Your task to perform on an android device: When is my next meeting? Image 0: 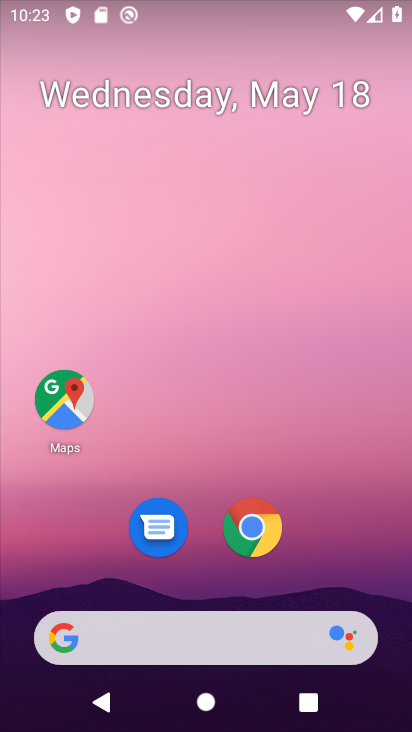
Step 0: drag from (346, 535) to (351, 184)
Your task to perform on an android device: When is my next meeting? Image 1: 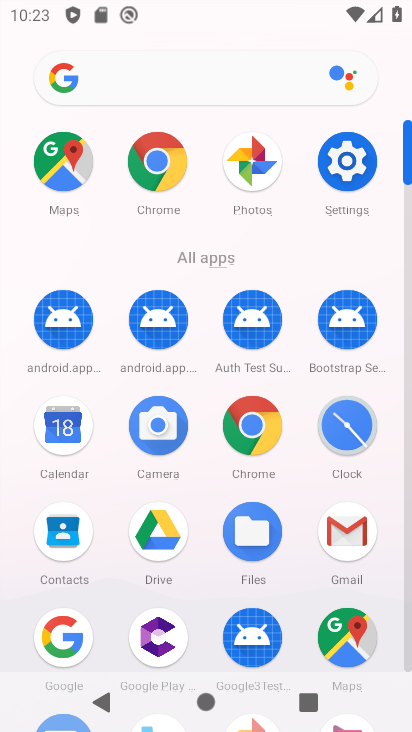
Step 1: click (57, 432)
Your task to perform on an android device: When is my next meeting? Image 2: 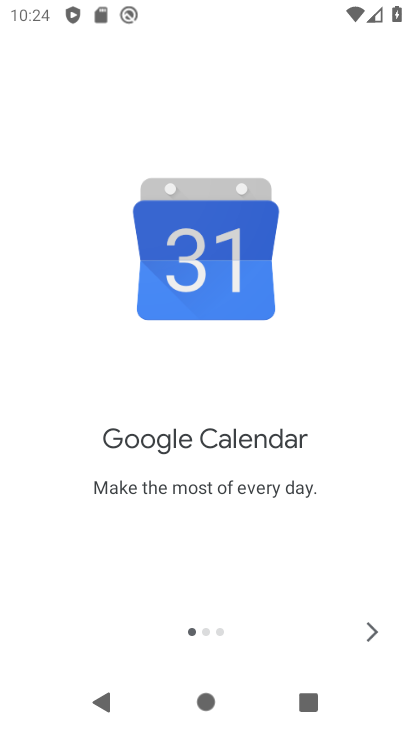
Step 2: click (373, 618)
Your task to perform on an android device: When is my next meeting? Image 3: 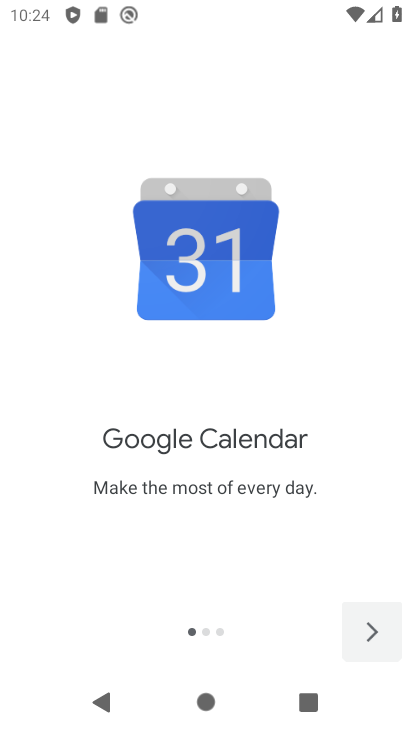
Step 3: click (373, 618)
Your task to perform on an android device: When is my next meeting? Image 4: 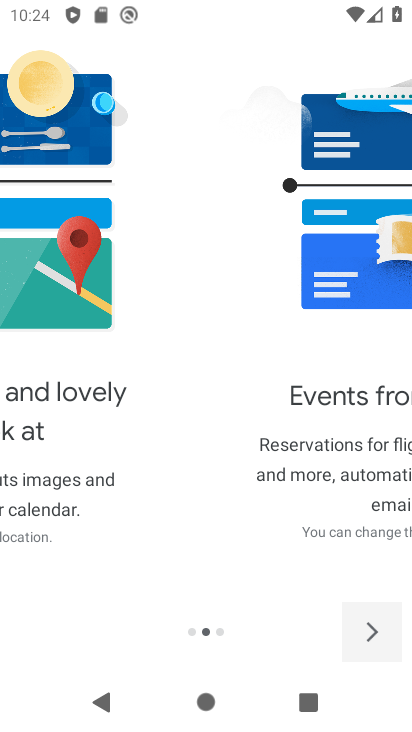
Step 4: click (373, 618)
Your task to perform on an android device: When is my next meeting? Image 5: 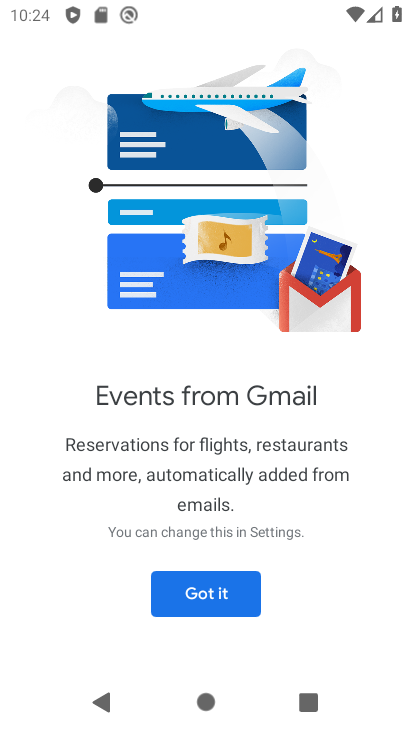
Step 5: click (145, 578)
Your task to perform on an android device: When is my next meeting? Image 6: 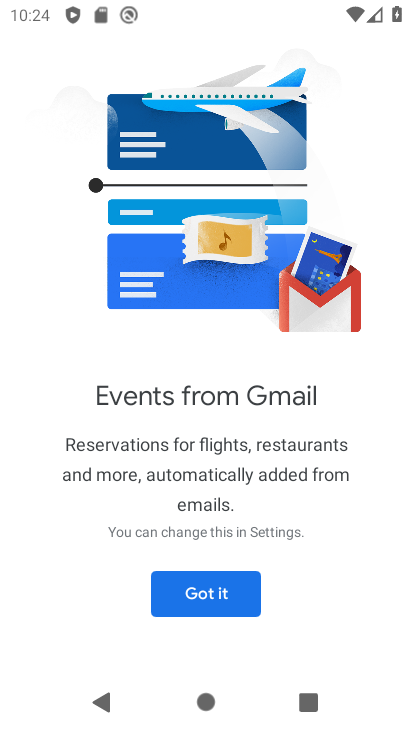
Step 6: click (212, 602)
Your task to perform on an android device: When is my next meeting? Image 7: 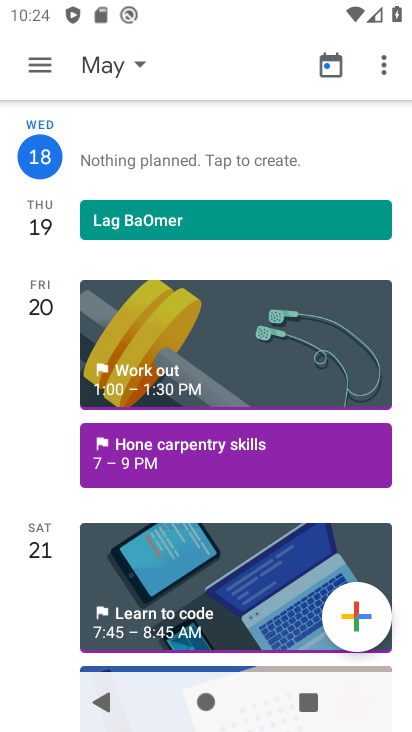
Step 7: click (42, 63)
Your task to perform on an android device: When is my next meeting? Image 8: 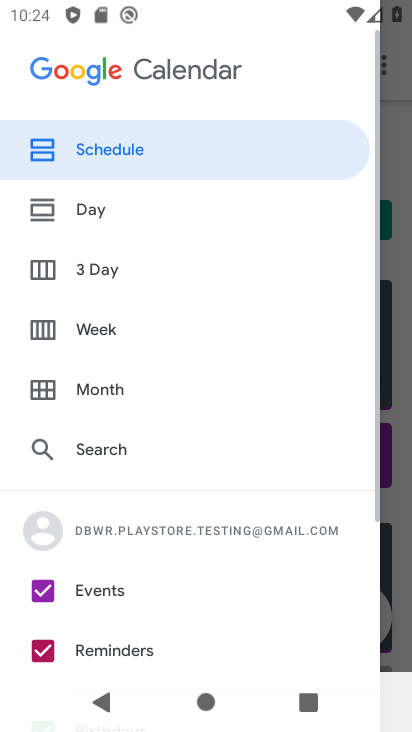
Step 8: click (162, 394)
Your task to perform on an android device: When is my next meeting? Image 9: 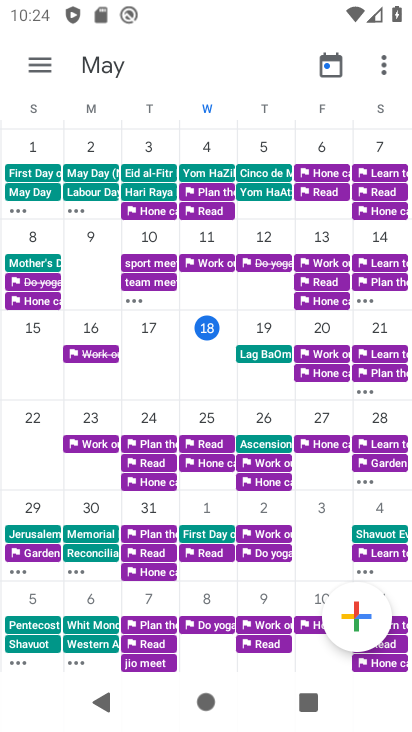
Step 9: task complete